Your task to perform on an android device: star an email in the gmail app Image 0: 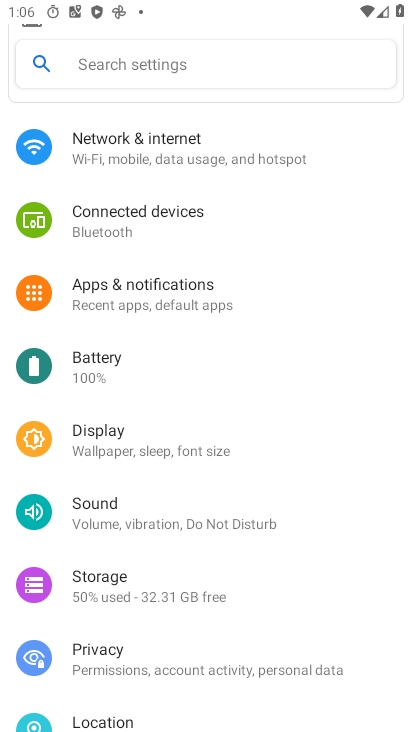
Step 0: press home button
Your task to perform on an android device: star an email in the gmail app Image 1: 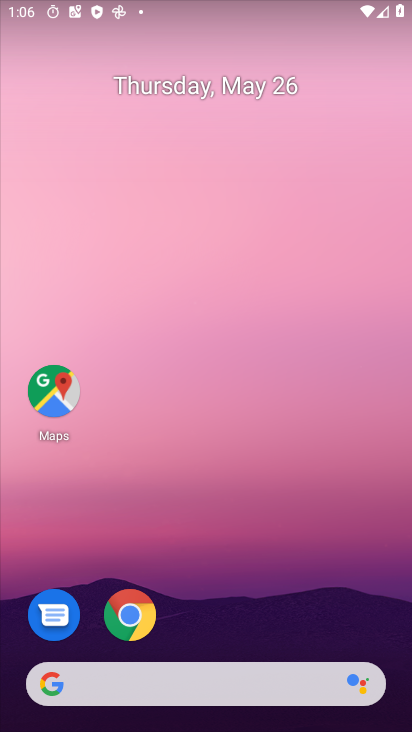
Step 1: drag from (279, 607) to (196, 144)
Your task to perform on an android device: star an email in the gmail app Image 2: 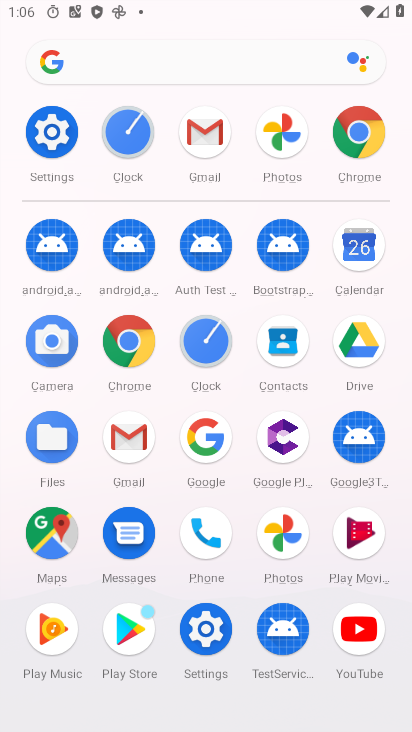
Step 2: click (207, 143)
Your task to perform on an android device: star an email in the gmail app Image 3: 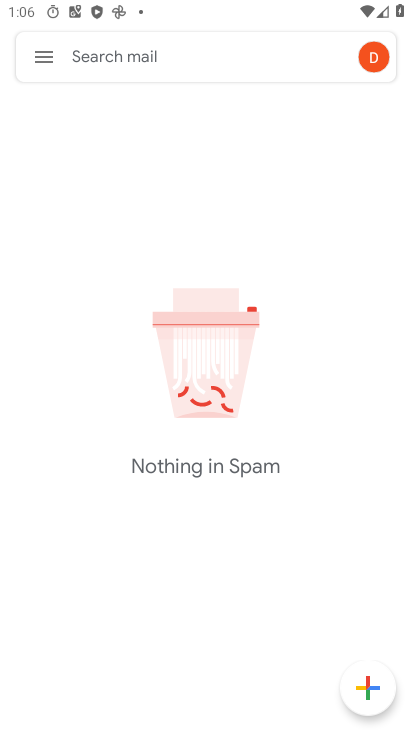
Step 3: click (50, 65)
Your task to perform on an android device: star an email in the gmail app Image 4: 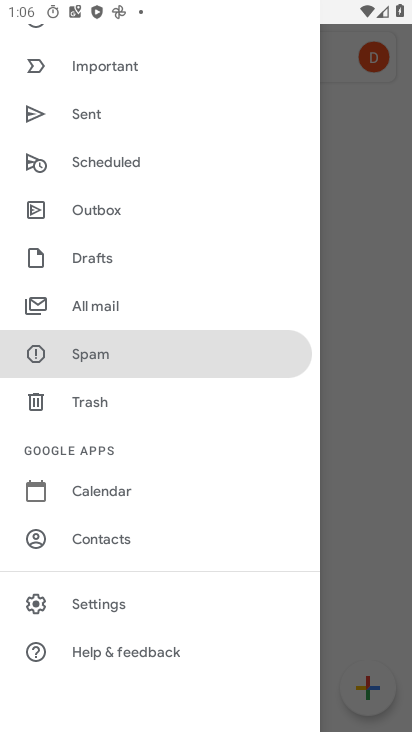
Step 4: drag from (135, 144) to (138, 516)
Your task to perform on an android device: star an email in the gmail app Image 5: 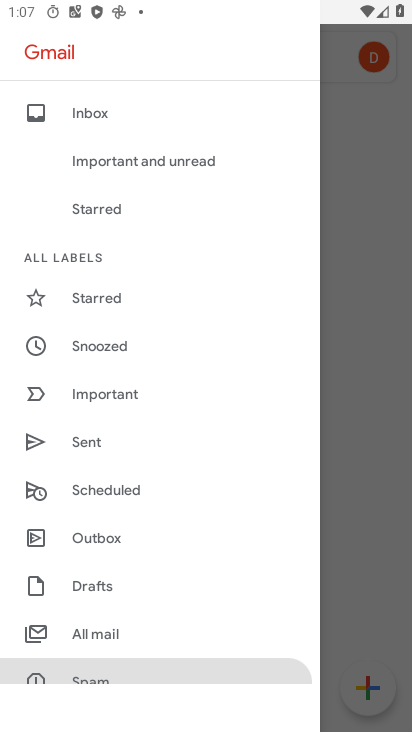
Step 5: click (139, 124)
Your task to perform on an android device: star an email in the gmail app Image 6: 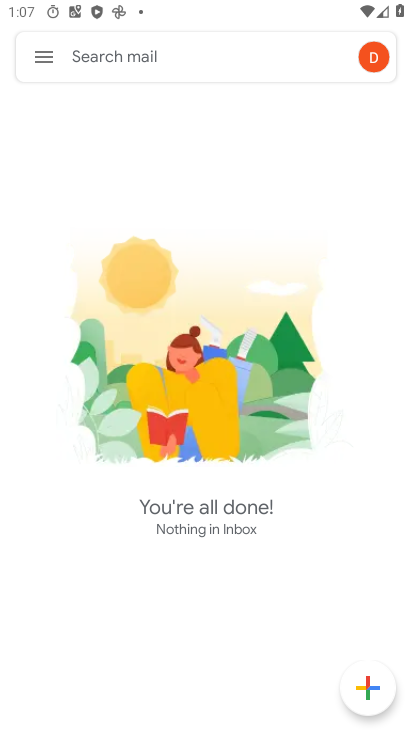
Step 6: task complete